Your task to perform on an android device: Go to wifi settings Image 0: 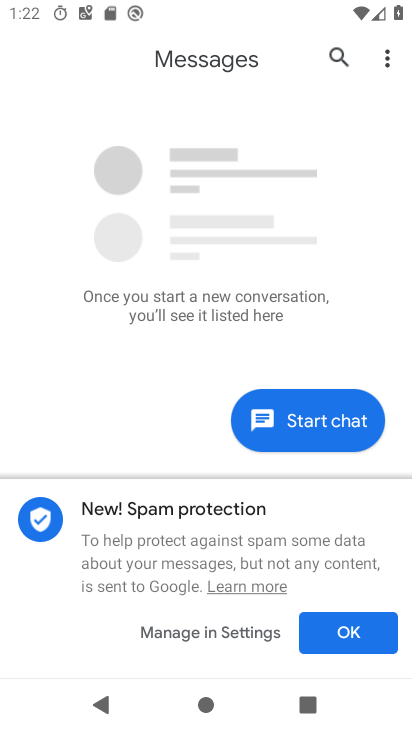
Step 0: press home button
Your task to perform on an android device: Go to wifi settings Image 1: 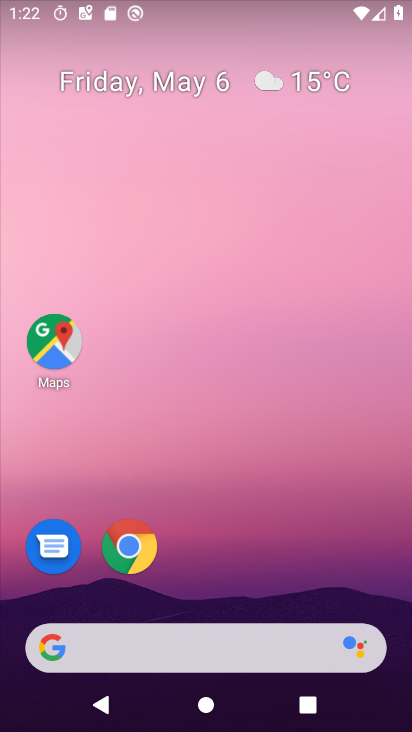
Step 1: drag from (321, 537) to (316, 81)
Your task to perform on an android device: Go to wifi settings Image 2: 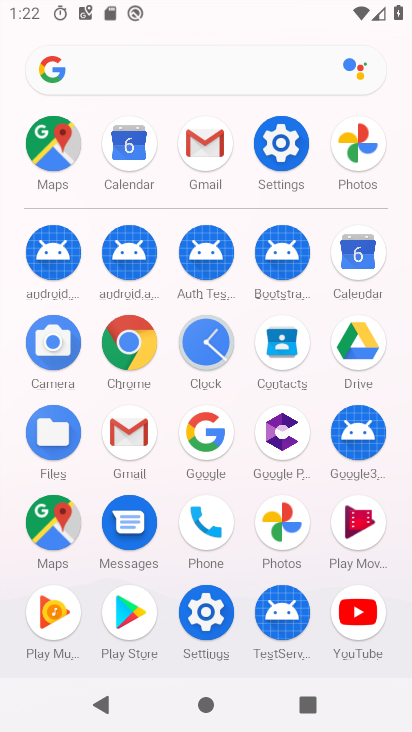
Step 2: click (287, 138)
Your task to perform on an android device: Go to wifi settings Image 3: 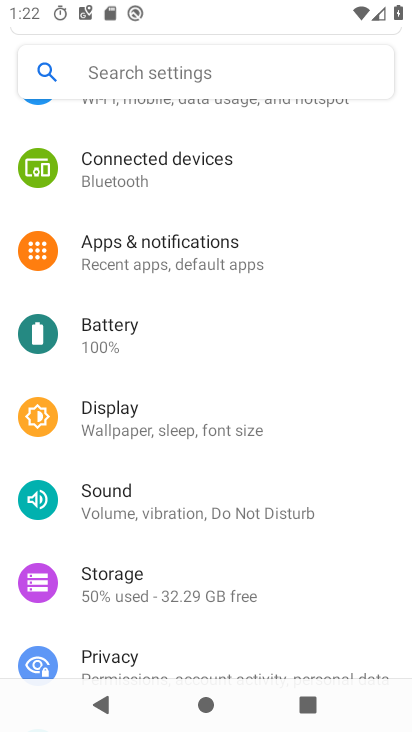
Step 3: drag from (253, 144) to (265, 535)
Your task to perform on an android device: Go to wifi settings Image 4: 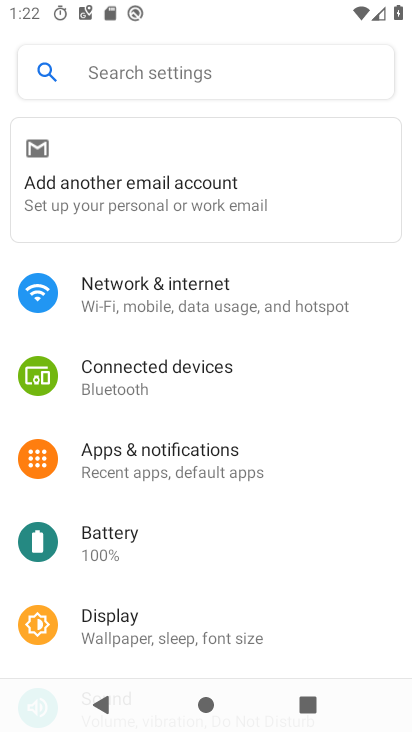
Step 4: click (223, 295)
Your task to perform on an android device: Go to wifi settings Image 5: 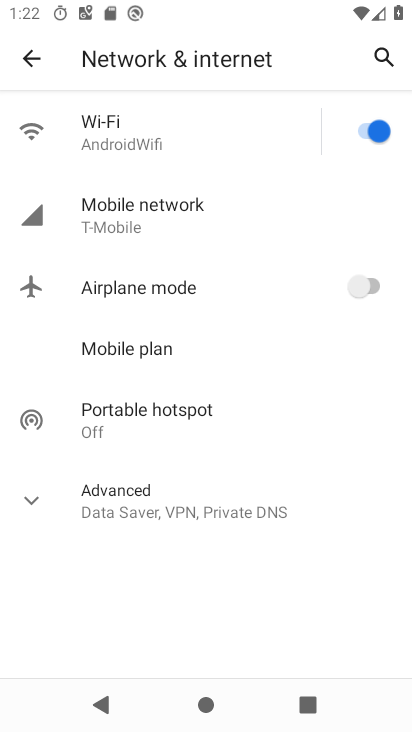
Step 5: click (147, 141)
Your task to perform on an android device: Go to wifi settings Image 6: 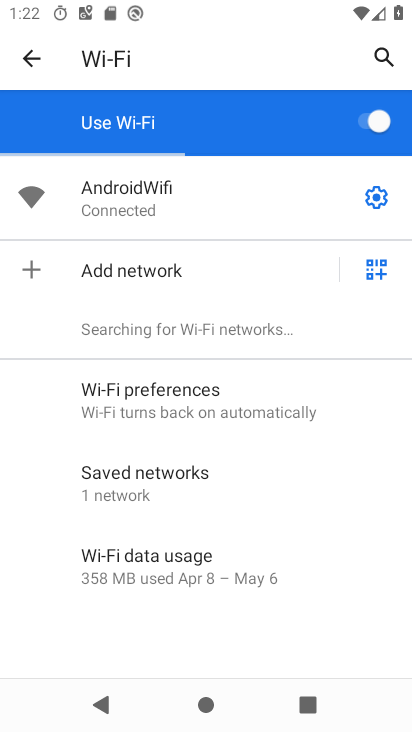
Step 6: task complete